Your task to perform on an android device: Search for usb-c on bestbuy.com, select the first entry, add it to the cart, then select checkout. Image 0: 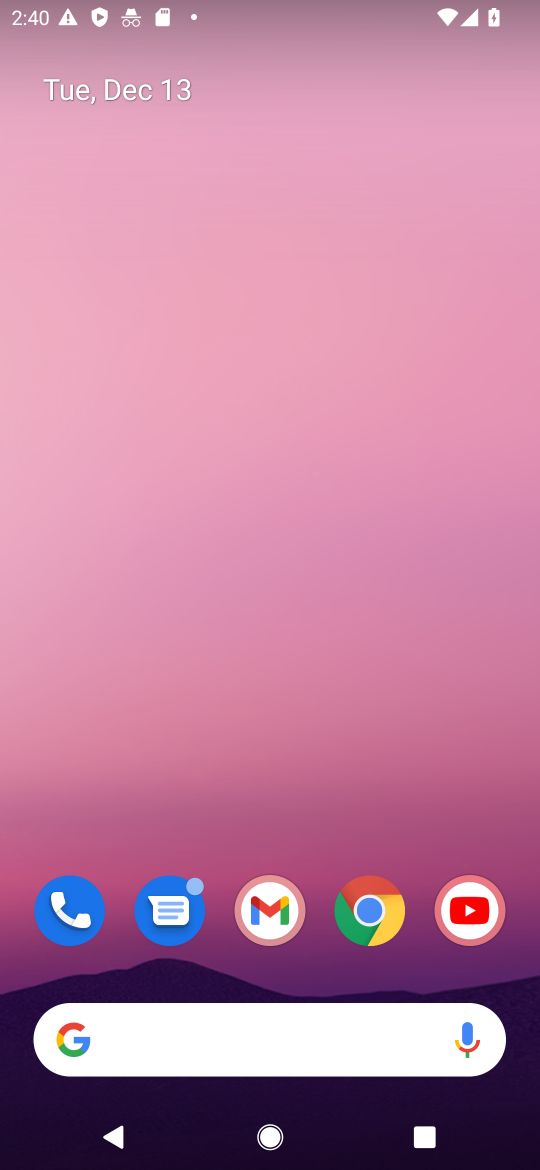
Step 0: click (353, 907)
Your task to perform on an android device: Search for usb-c on bestbuy.com, select the first entry, add it to the cart, then select checkout. Image 1: 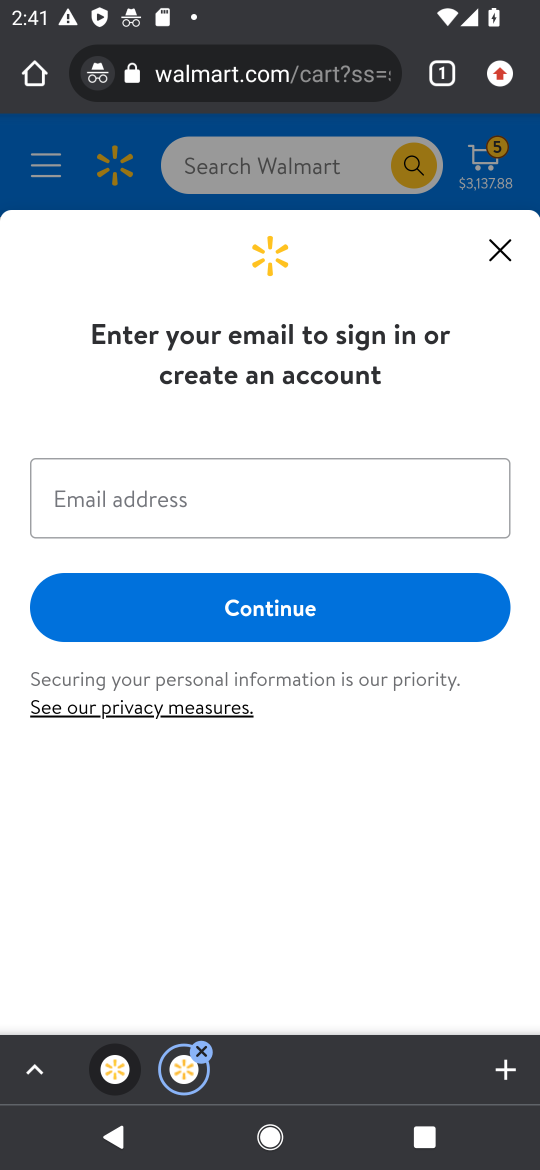
Step 1: click (327, 78)
Your task to perform on an android device: Search for usb-c on bestbuy.com, select the first entry, add it to the cart, then select checkout. Image 2: 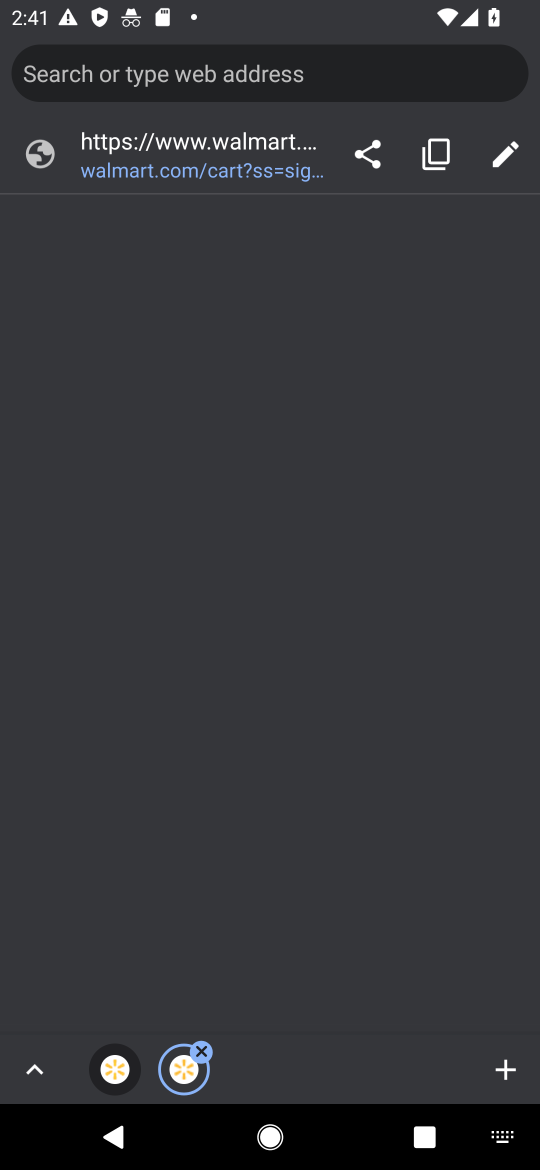
Step 2: type "BESTBUY"
Your task to perform on an android device: Search for usb-c on bestbuy.com, select the first entry, add it to the cart, then select checkout. Image 3: 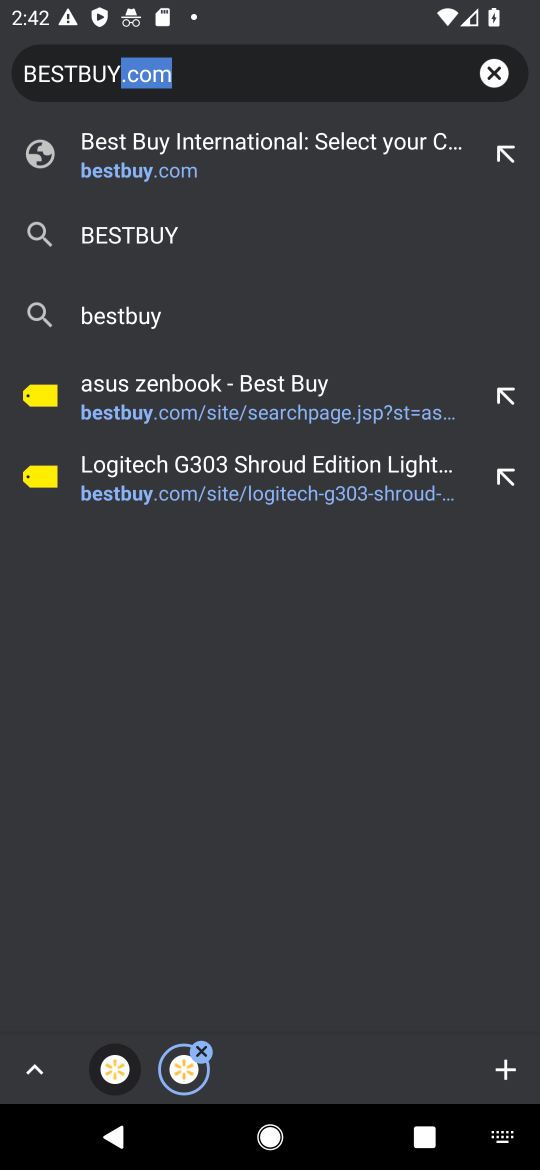
Step 3: click (275, 145)
Your task to perform on an android device: Search for usb-c on bestbuy.com, select the first entry, add it to the cart, then select checkout. Image 4: 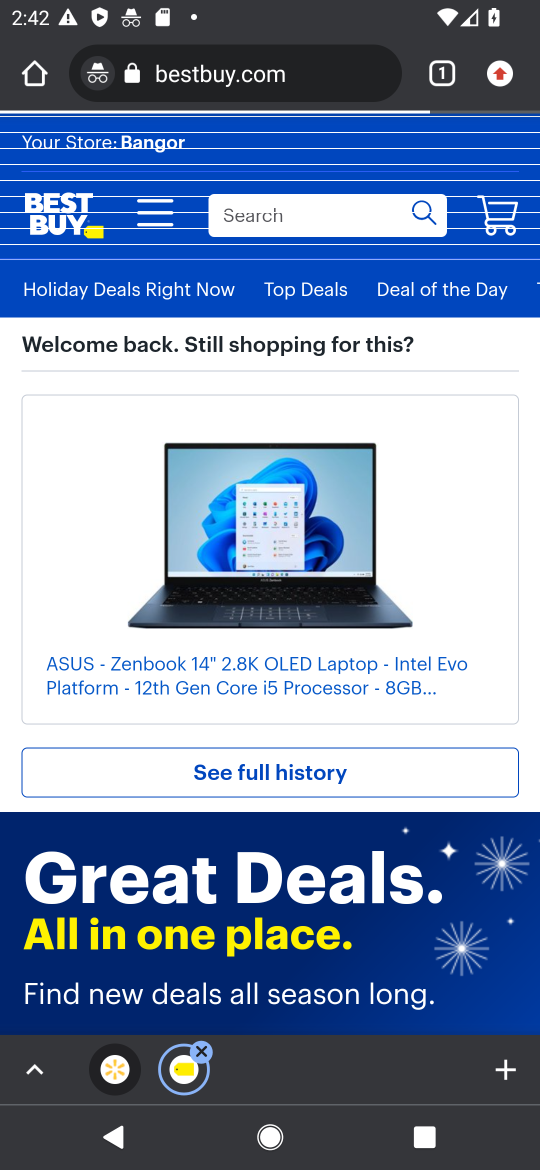
Step 4: click (280, 214)
Your task to perform on an android device: Search for usb-c on bestbuy.com, select the first entry, add it to the cart, then select checkout. Image 5: 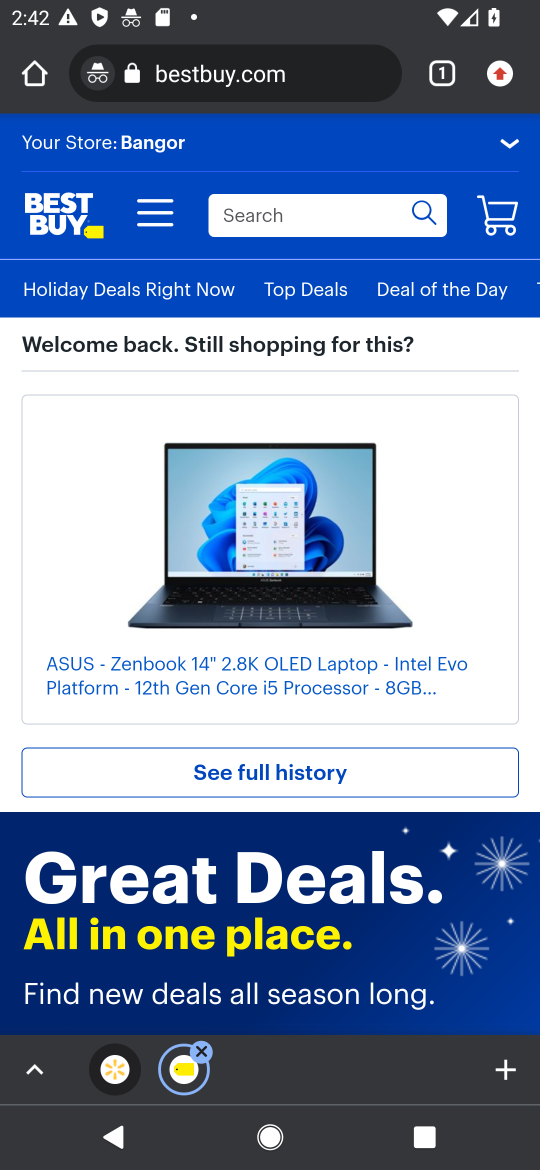
Step 5: type "USB-C"
Your task to perform on an android device: Search for usb-c on bestbuy.com, select the first entry, add it to the cart, then select checkout. Image 6: 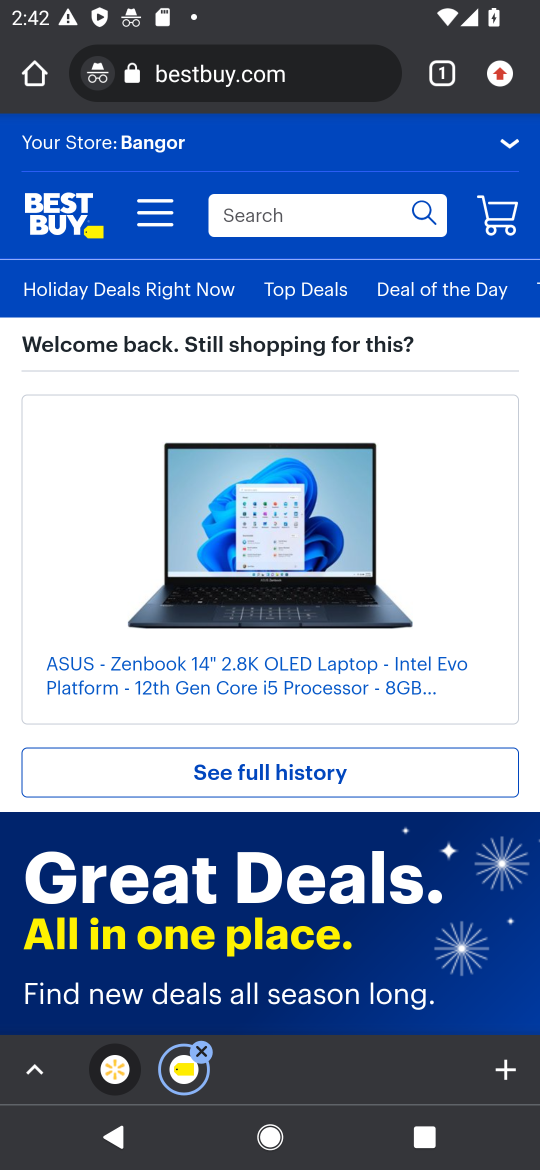
Step 6: click (356, 208)
Your task to perform on an android device: Search for usb-c on bestbuy.com, select the first entry, add it to the cart, then select checkout. Image 7: 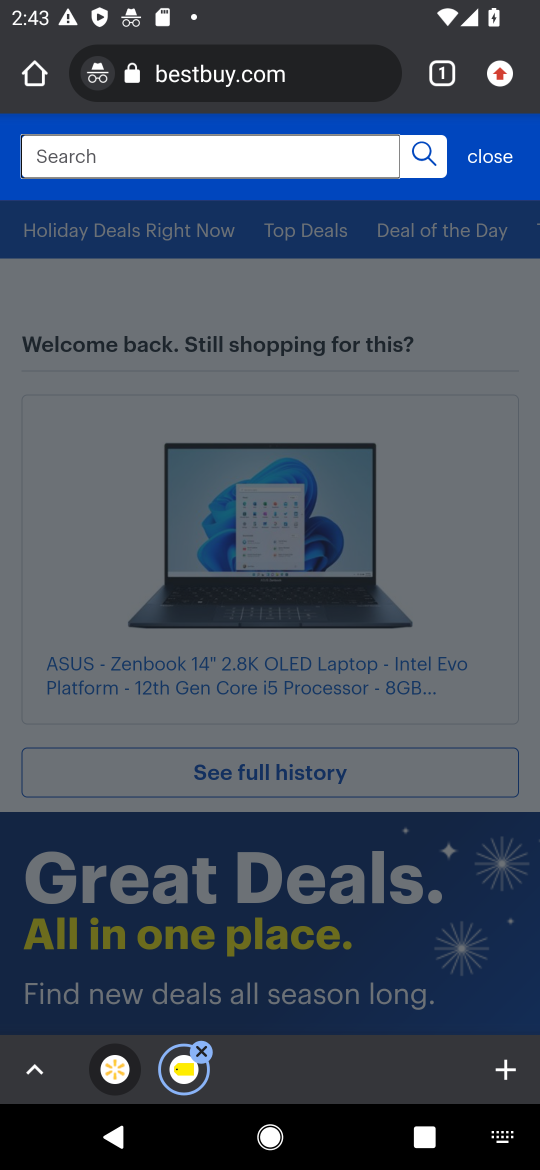
Step 7: type "USB-C"
Your task to perform on an android device: Search for usb-c on bestbuy.com, select the first entry, add it to the cart, then select checkout. Image 8: 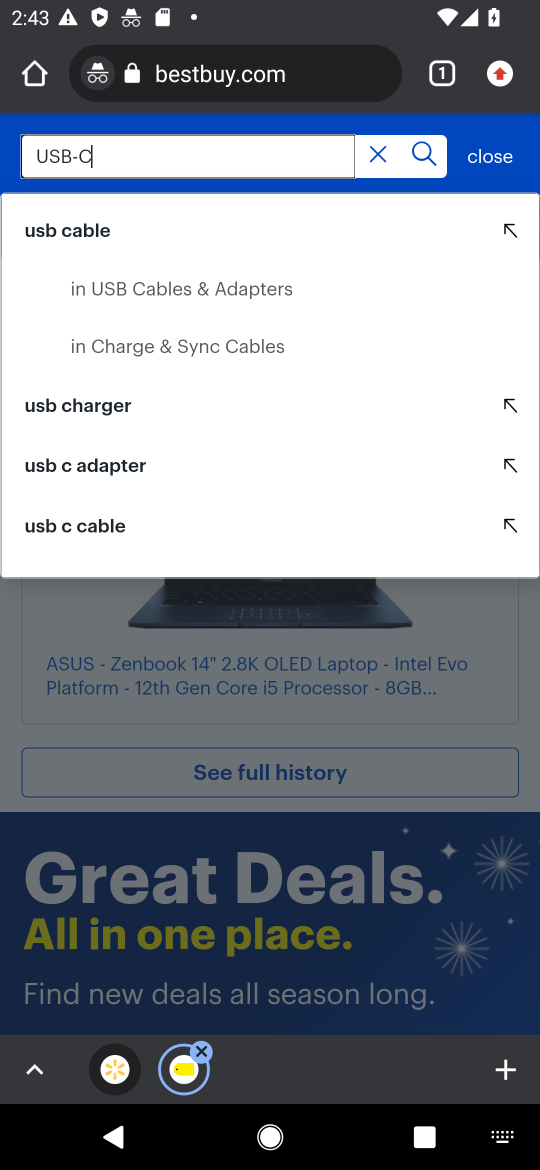
Step 8: click (79, 235)
Your task to perform on an android device: Search for usb-c on bestbuy.com, select the first entry, add it to the cart, then select checkout. Image 9: 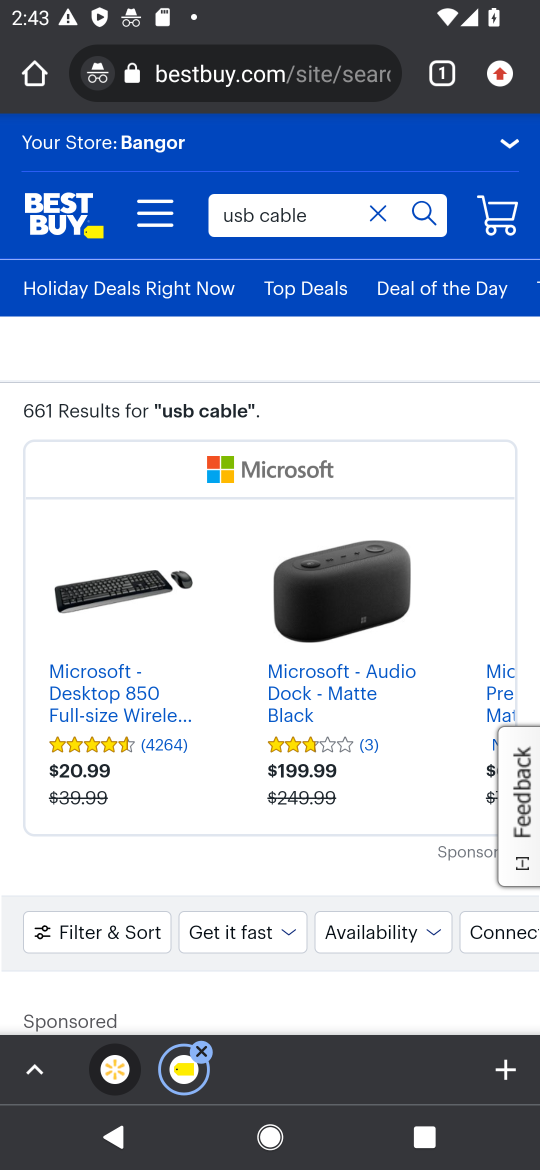
Step 9: drag from (272, 899) to (227, 300)
Your task to perform on an android device: Search for usb-c on bestbuy.com, select the first entry, add it to the cart, then select checkout. Image 10: 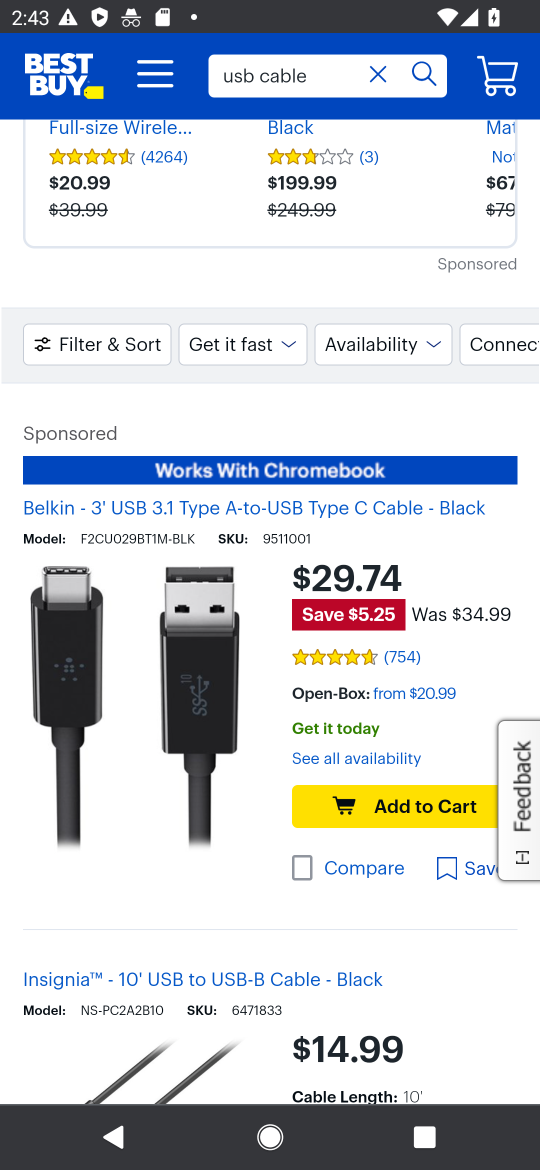
Step 10: click (392, 805)
Your task to perform on an android device: Search for usb-c on bestbuy.com, select the first entry, add it to the cart, then select checkout. Image 11: 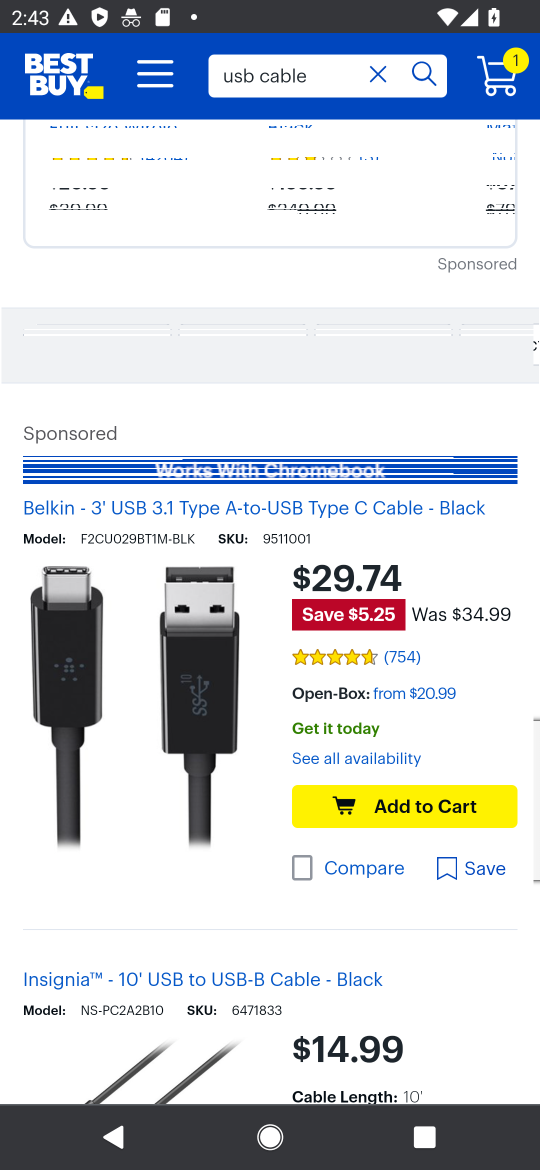
Step 11: click (494, 64)
Your task to perform on an android device: Search for usb-c on bestbuy.com, select the first entry, add it to the cart, then select checkout. Image 12: 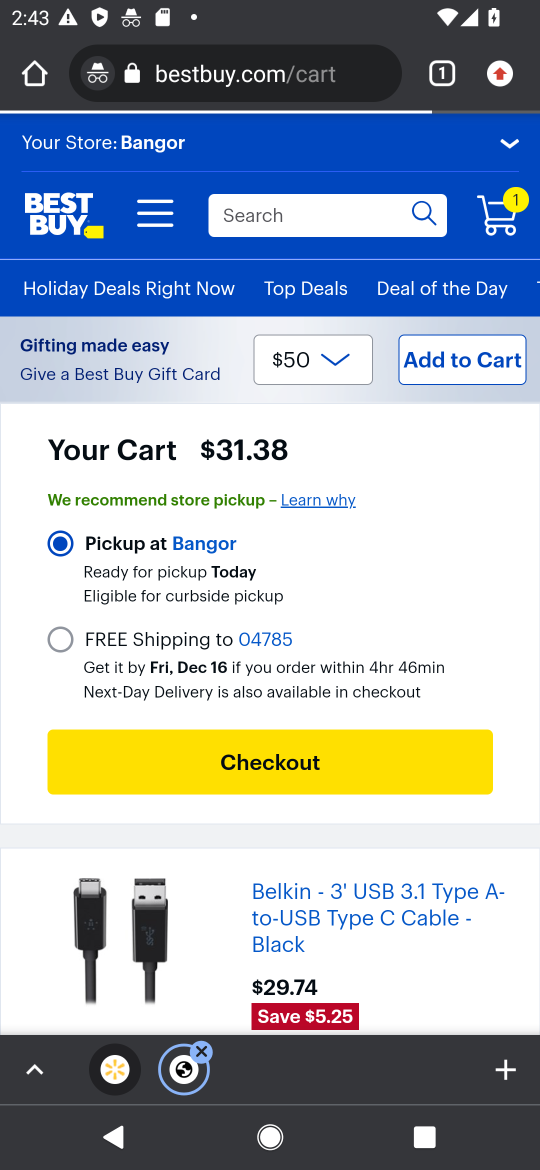
Step 12: click (283, 754)
Your task to perform on an android device: Search for usb-c on bestbuy.com, select the first entry, add it to the cart, then select checkout. Image 13: 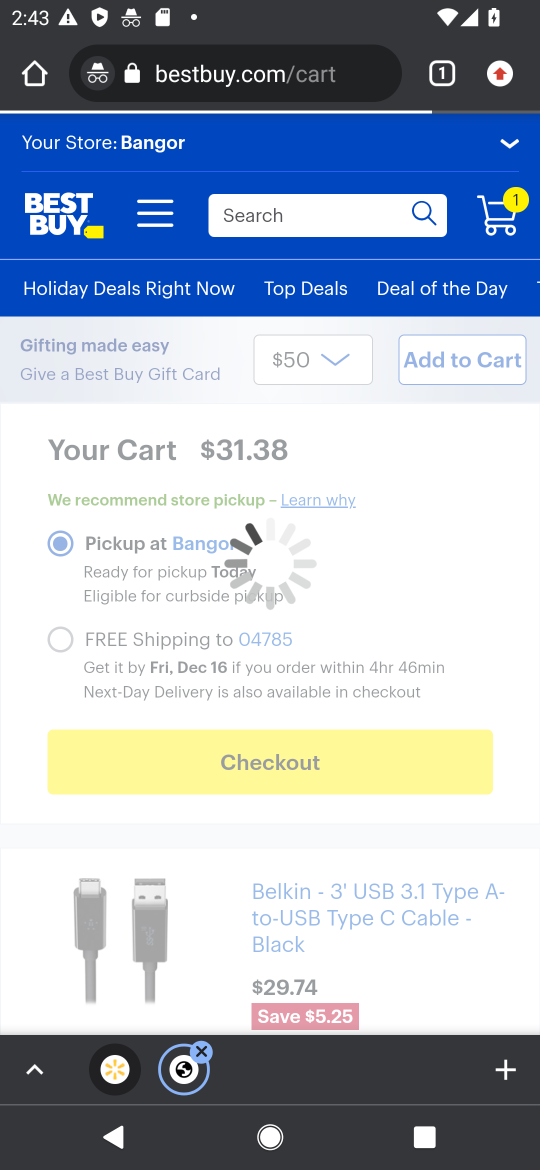
Step 13: task complete